Your task to perform on an android device: When is my next meeting? Image 0: 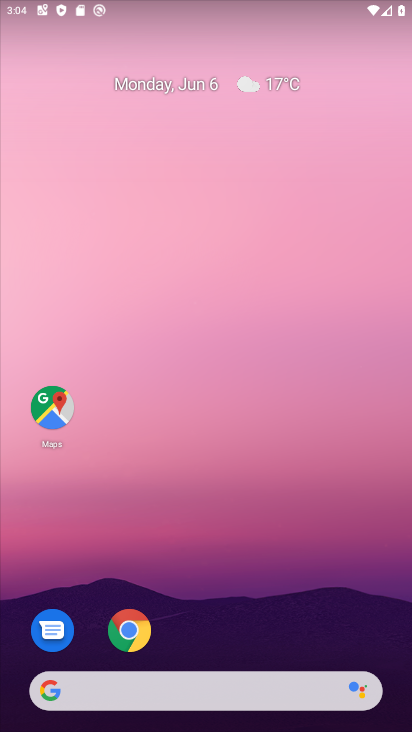
Step 0: drag from (200, 630) to (268, 103)
Your task to perform on an android device: When is my next meeting? Image 1: 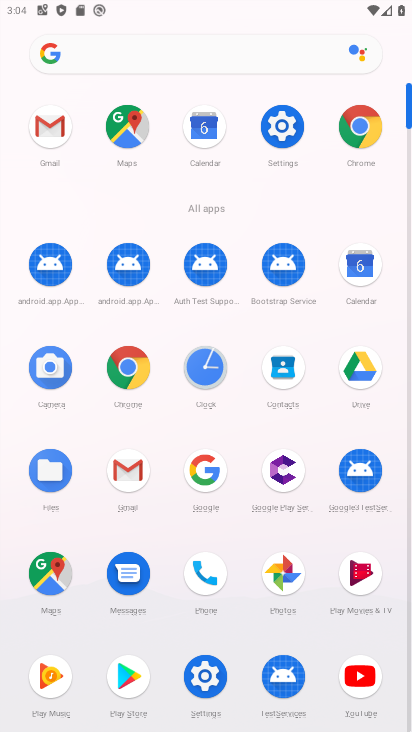
Step 1: click (368, 263)
Your task to perform on an android device: When is my next meeting? Image 2: 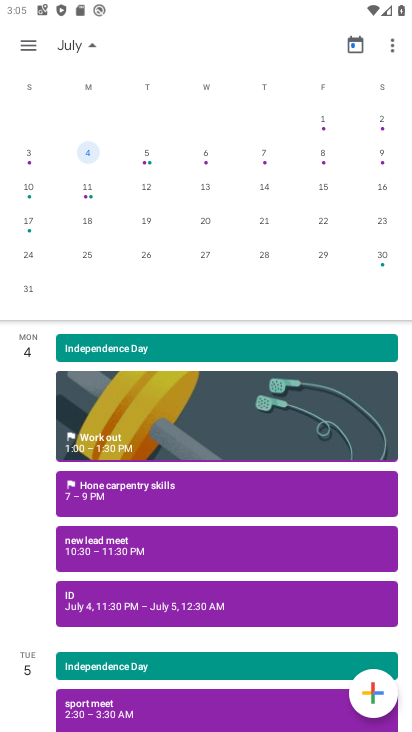
Step 2: drag from (201, 690) to (264, 234)
Your task to perform on an android device: When is my next meeting? Image 3: 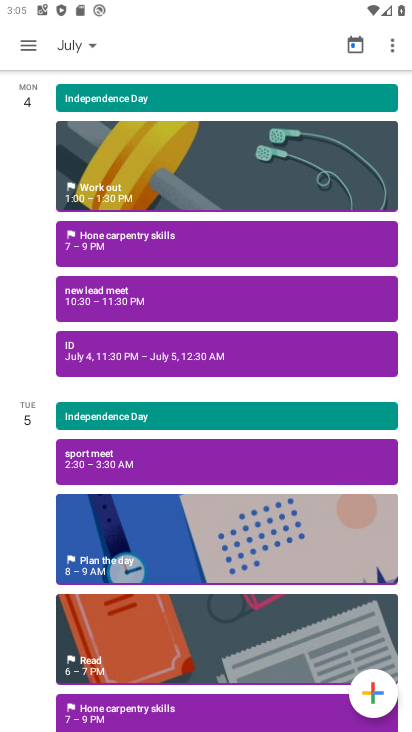
Step 3: drag from (160, 176) to (175, 723)
Your task to perform on an android device: When is my next meeting? Image 4: 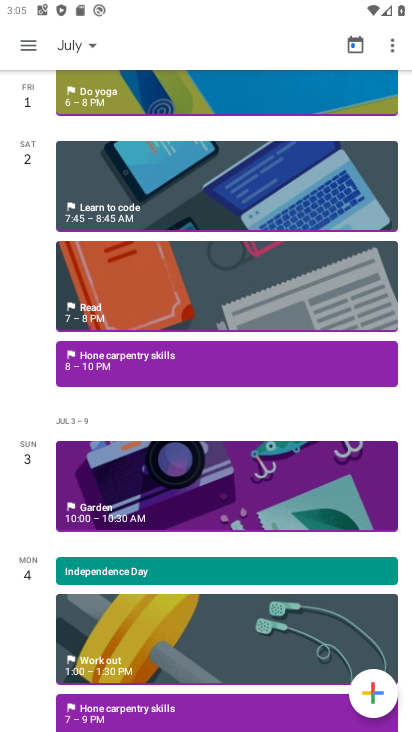
Step 4: drag from (120, 175) to (127, 697)
Your task to perform on an android device: When is my next meeting? Image 5: 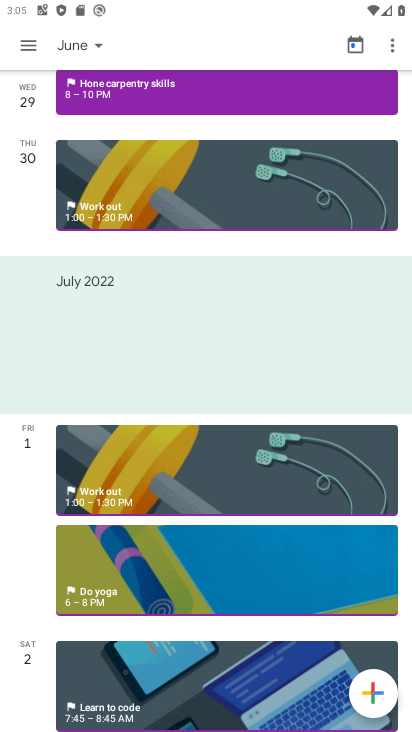
Step 5: drag from (160, 144) to (163, 473)
Your task to perform on an android device: When is my next meeting? Image 6: 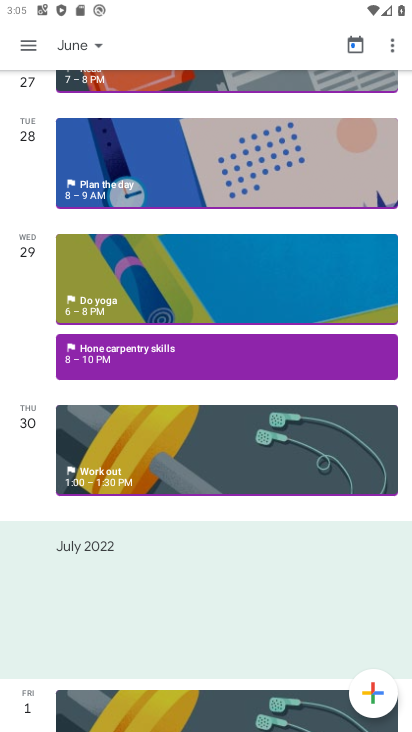
Step 6: click (87, 36)
Your task to perform on an android device: When is my next meeting? Image 7: 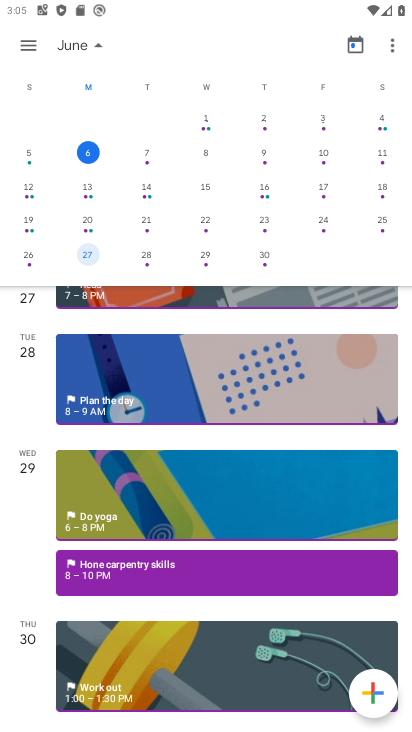
Step 7: click (90, 153)
Your task to perform on an android device: When is my next meeting? Image 8: 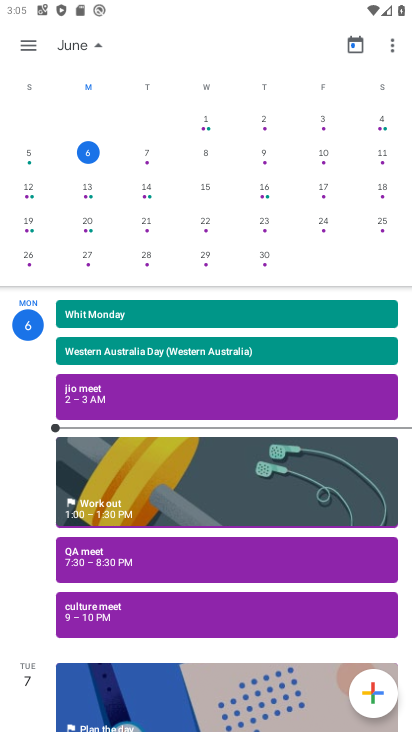
Step 8: drag from (136, 551) to (204, 151)
Your task to perform on an android device: When is my next meeting? Image 9: 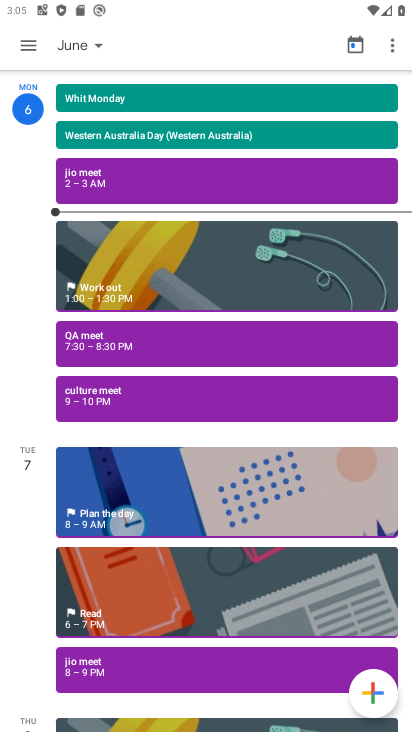
Step 9: click (104, 666)
Your task to perform on an android device: When is my next meeting? Image 10: 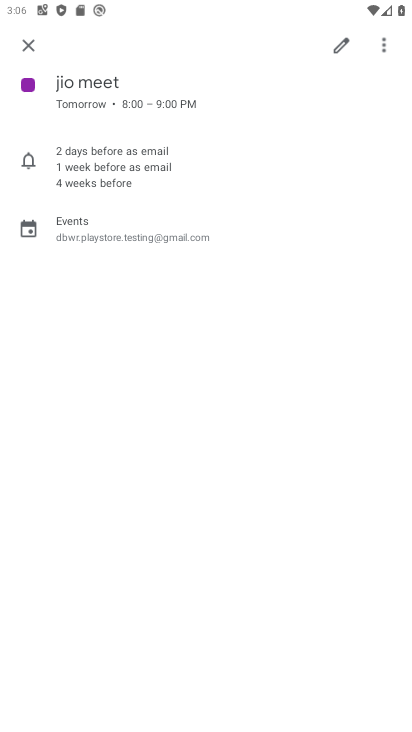
Step 10: task complete